Your task to perform on an android device: Open the web browser Image 0: 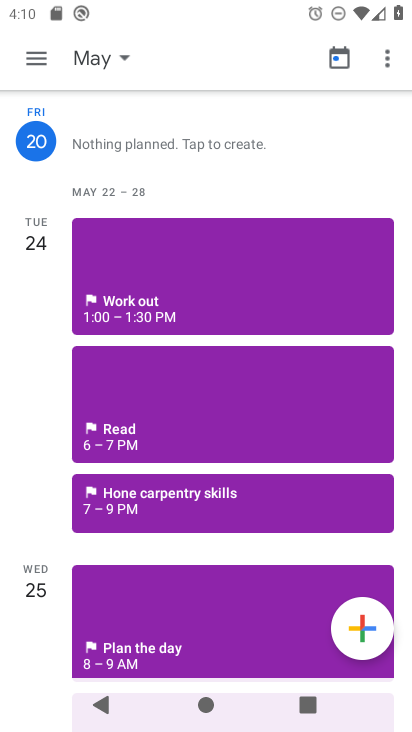
Step 0: press home button
Your task to perform on an android device: Open the web browser Image 1: 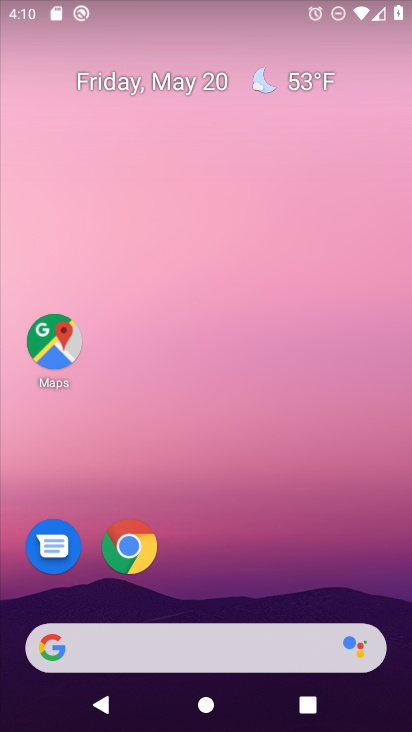
Step 1: click (117, 552)
Your task to perform on an android device: Open the web browser Image 2: 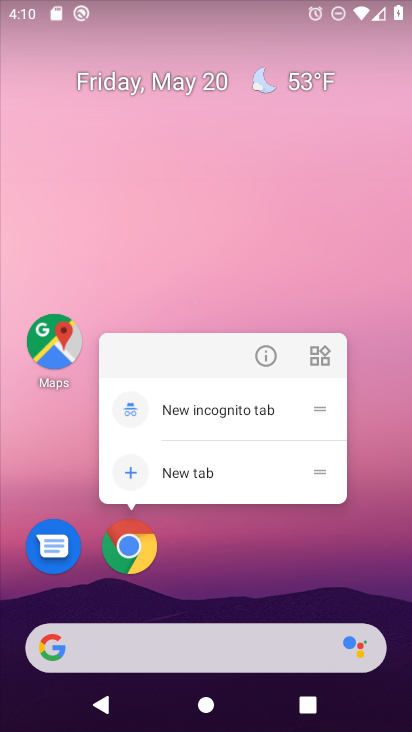
Step 2: click (132, 546)
Your task to perform on an android device: Open the web browser Image 3: 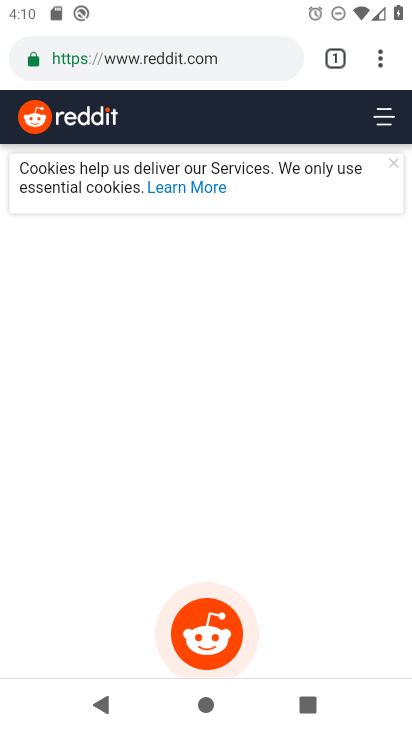
Step 3: task complete